Your task to perform on an android device: Open Amazon Image 0: 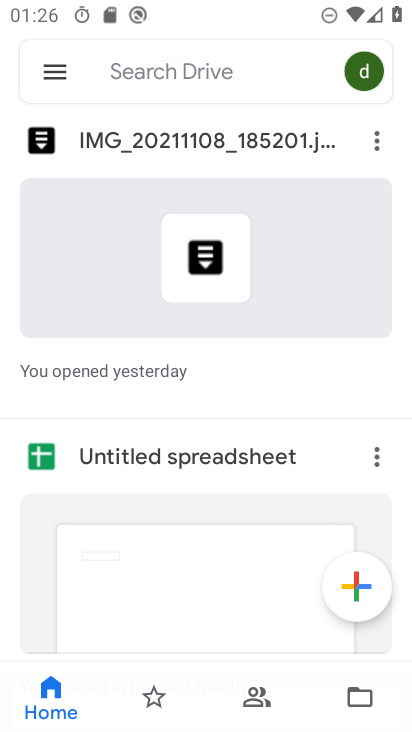
Step 0: press home button
Your task to perform on an android device: Open Amazon Image 1: 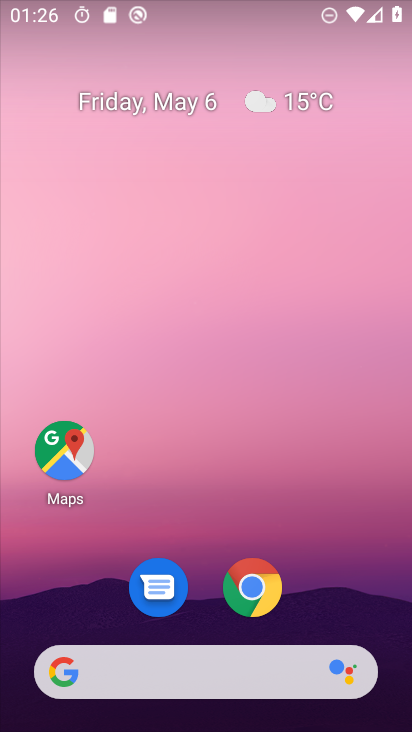
Step 1: click (241, 592)
Your task to perform on an android device: Open Amazon Image 2: 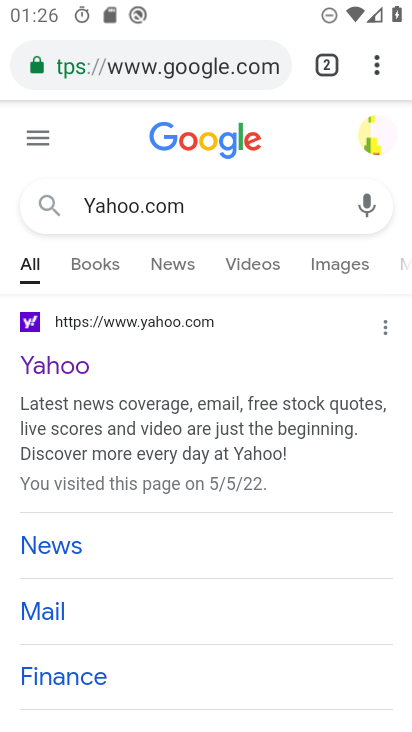
Step 2: click (326, 62)
Your task to perform on an android device: Open Amazon Image 3: 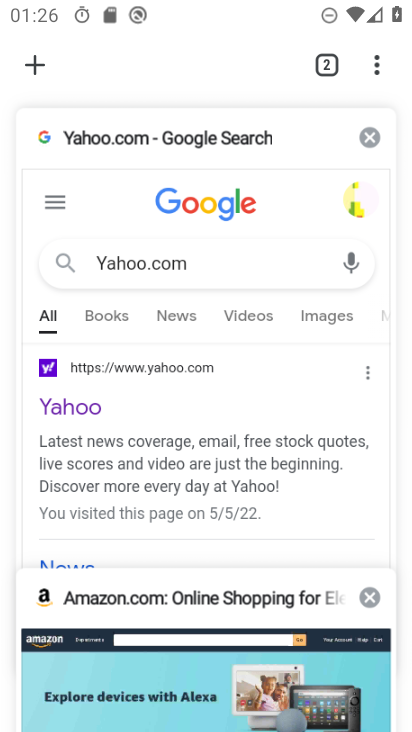
Step 3: click (371, 135)
Your task to perform on an android device: Open Amazon Image 4: 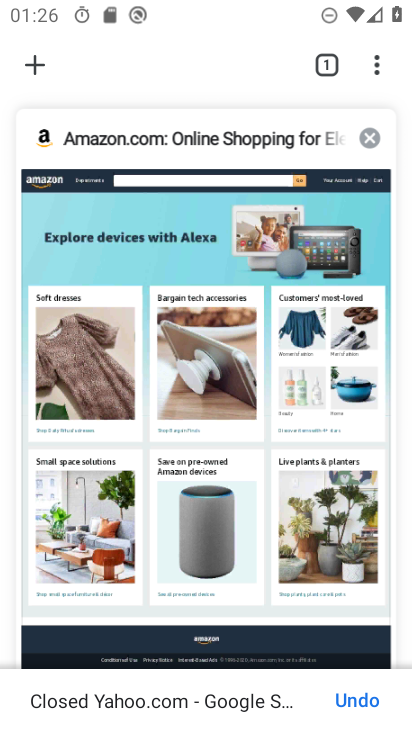
Step 4: click (371, 135)
Your task to perform on an android device: Open Amazon Image 5: 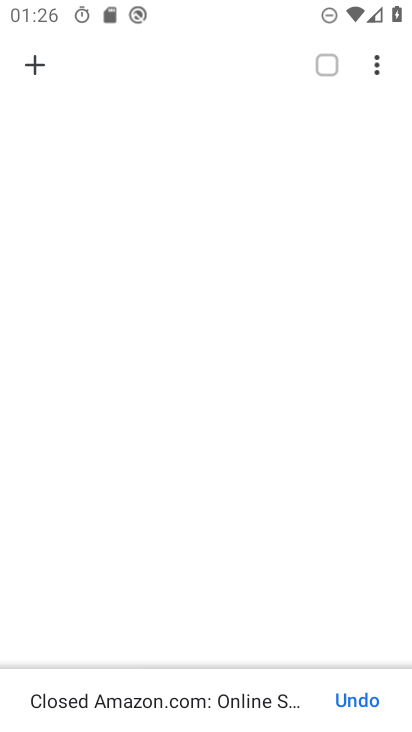
Step 5: click (34, 68)
Your task to perform on an android device: Open Amazon Image 6: 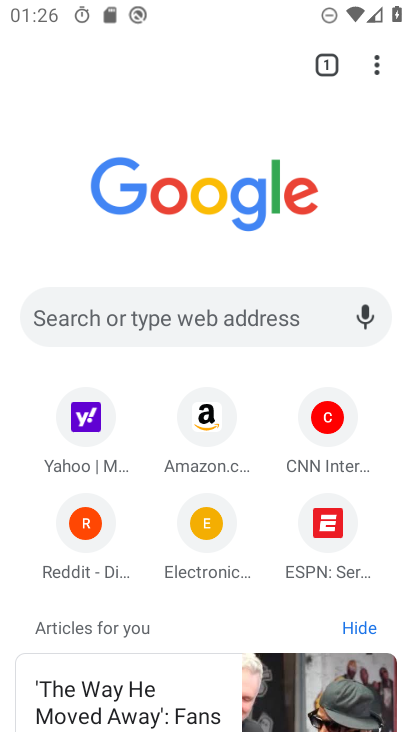
Step 6: click (217, 412)
Your task to perform on an android device: Open Amazon Image 7: 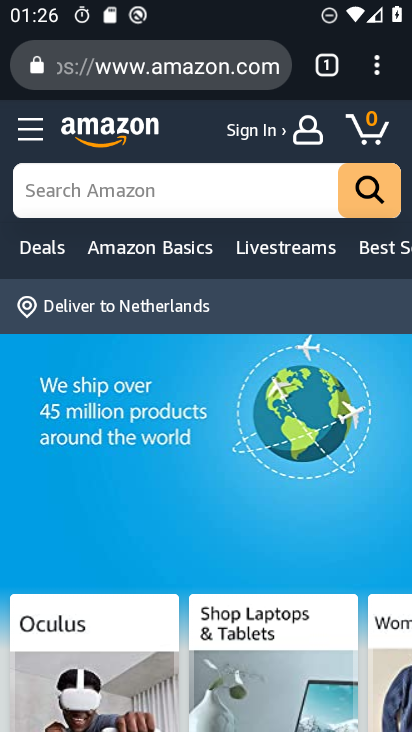
Step 7: task complete